Your task to perform on an android device: toggle data saver in the chrome app Image 0: 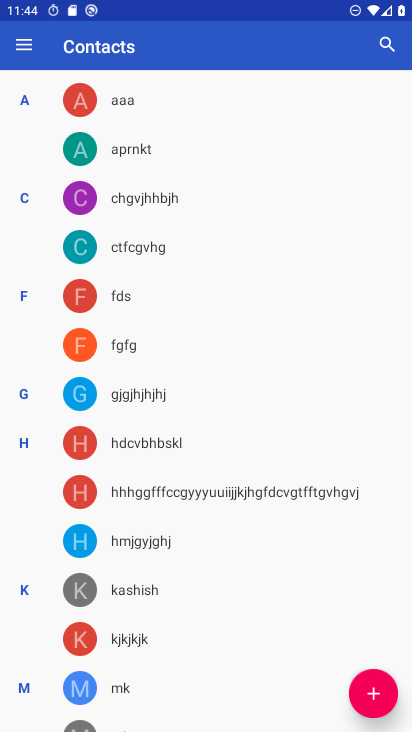
Step 0: press home button
Your task to perform on an android device: toggle data saver in the chrome app Image 1: 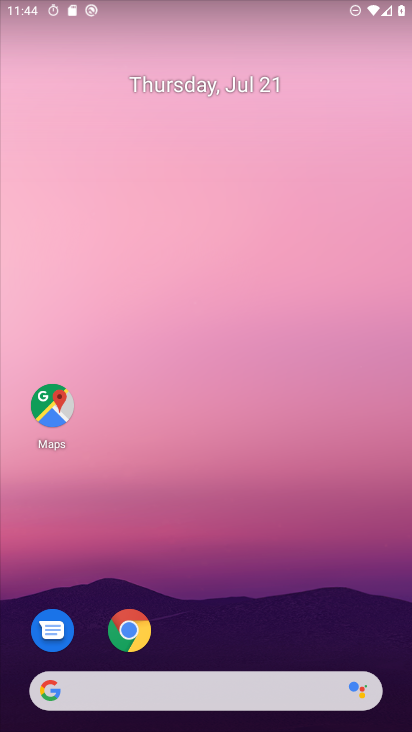
Step 1: click (133, 623)
Your task to perform on an android device: toggle data saver in the chrome app Image 2: 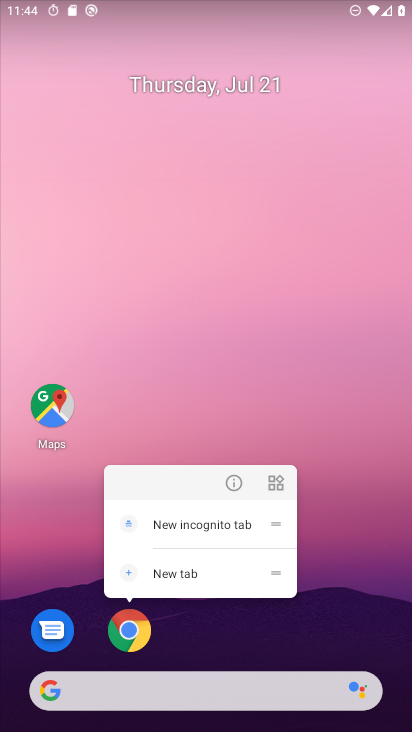
Step 2: click (137, 614)
Your task to perform on an android device: toggle data saver in the chrome app Image 3: 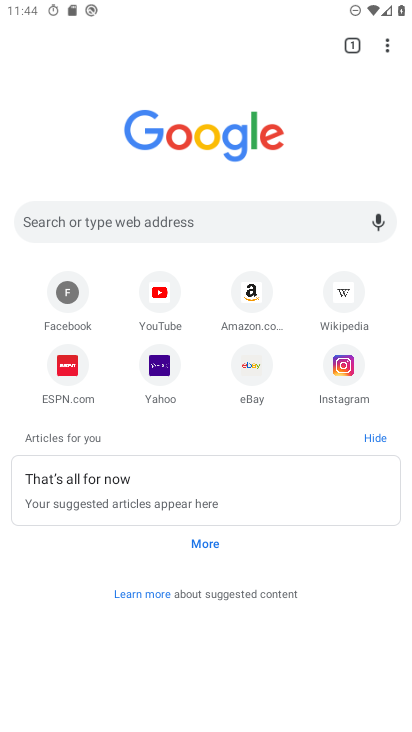
Step 3: drag from (384, 47) to (247, 415)
Your task to perform on an android device: toggle data saver in the chrome app Image 4: 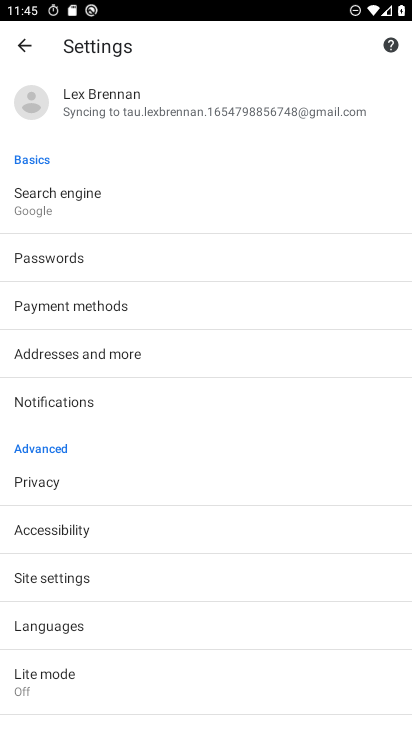
Step 4: click (27, 682)
Your task to perform on an android device: toggle data saver in the chrome app Image 5: 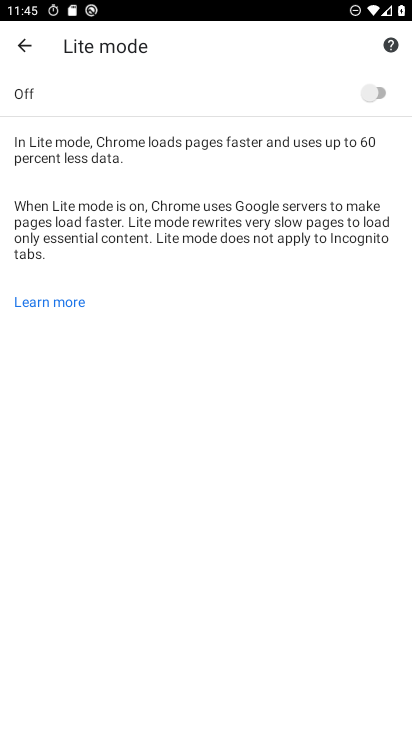
Step 5: click (376, 91)
Your task to perform on an android device: toggle data saver in the chrome app Image 6: 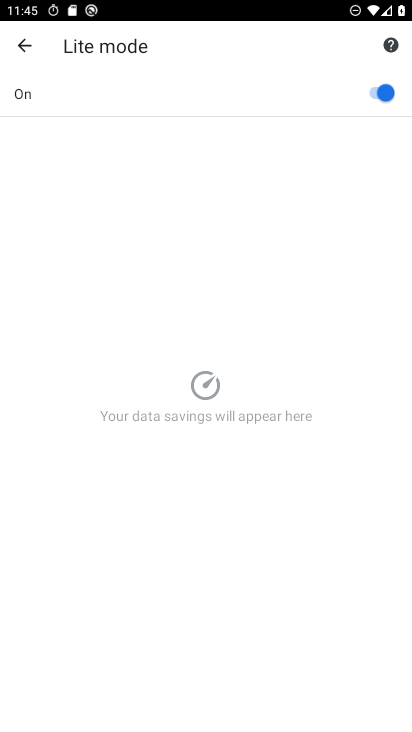
Step 6: task complete